Your task to perform on an android device: Open ESPN.com Image 0: 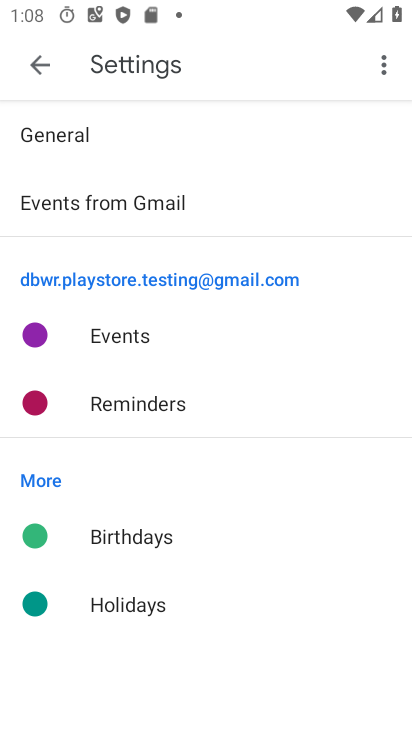
Step 0: press home button
Your task to perform on an android device: Open ESPN.com Image 1: 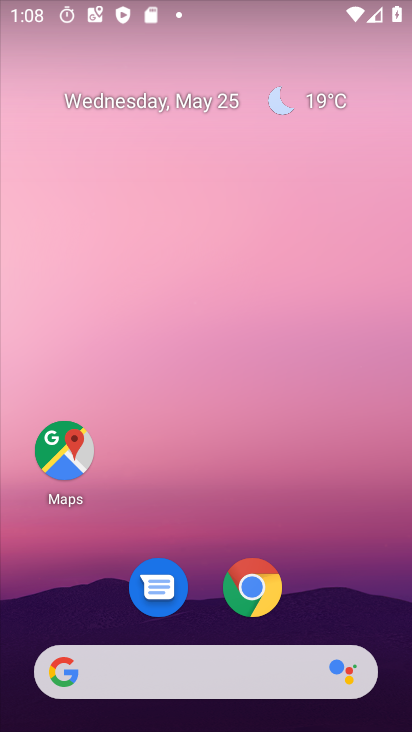
Step 1: click (246, 591)
Your task to perform on an android device: Open ESPN.com Image 2: 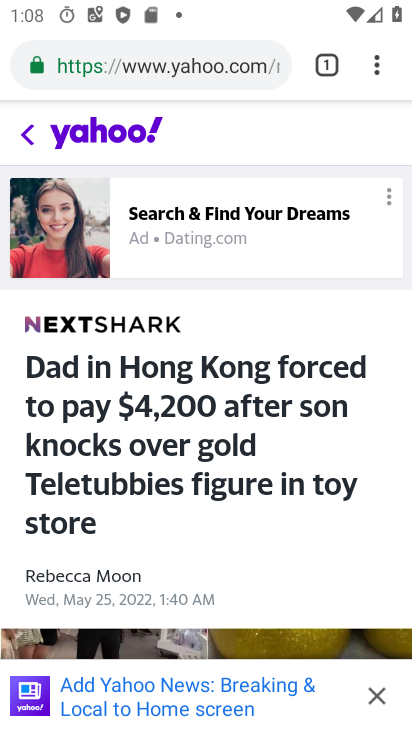
Step 2: click (378, 69)
Your task to perform on an android device: Open ESPN.com Image 3: 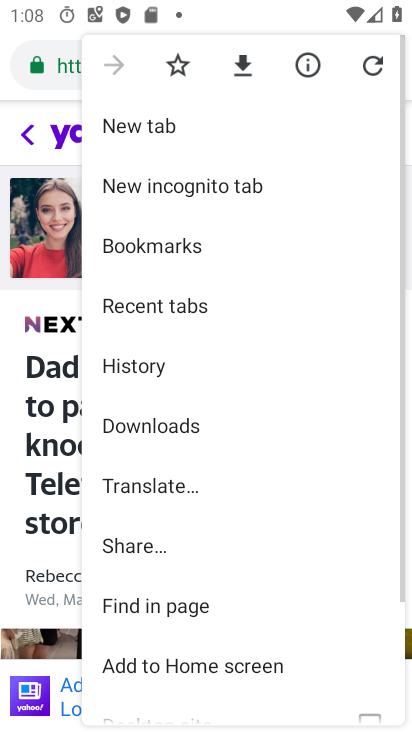
Step 3: click (157, 123)
Your task to perform on an android device: Open ESPN.com Image 4: 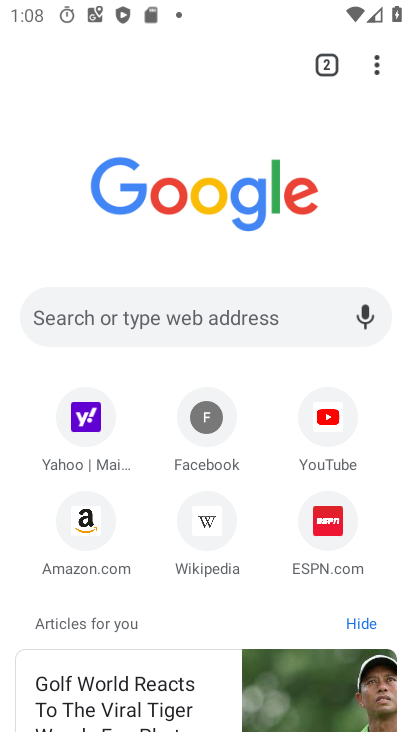
Step 4: click (329, 522)
Your task to perform on an android device: Open ESPN.com Image 5: 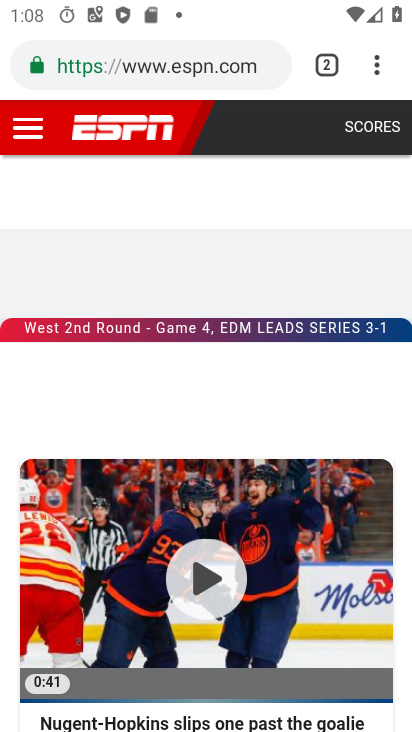
Step 5: task complete